Your task to perform on an android device: open app "Google Drive" Image 0: 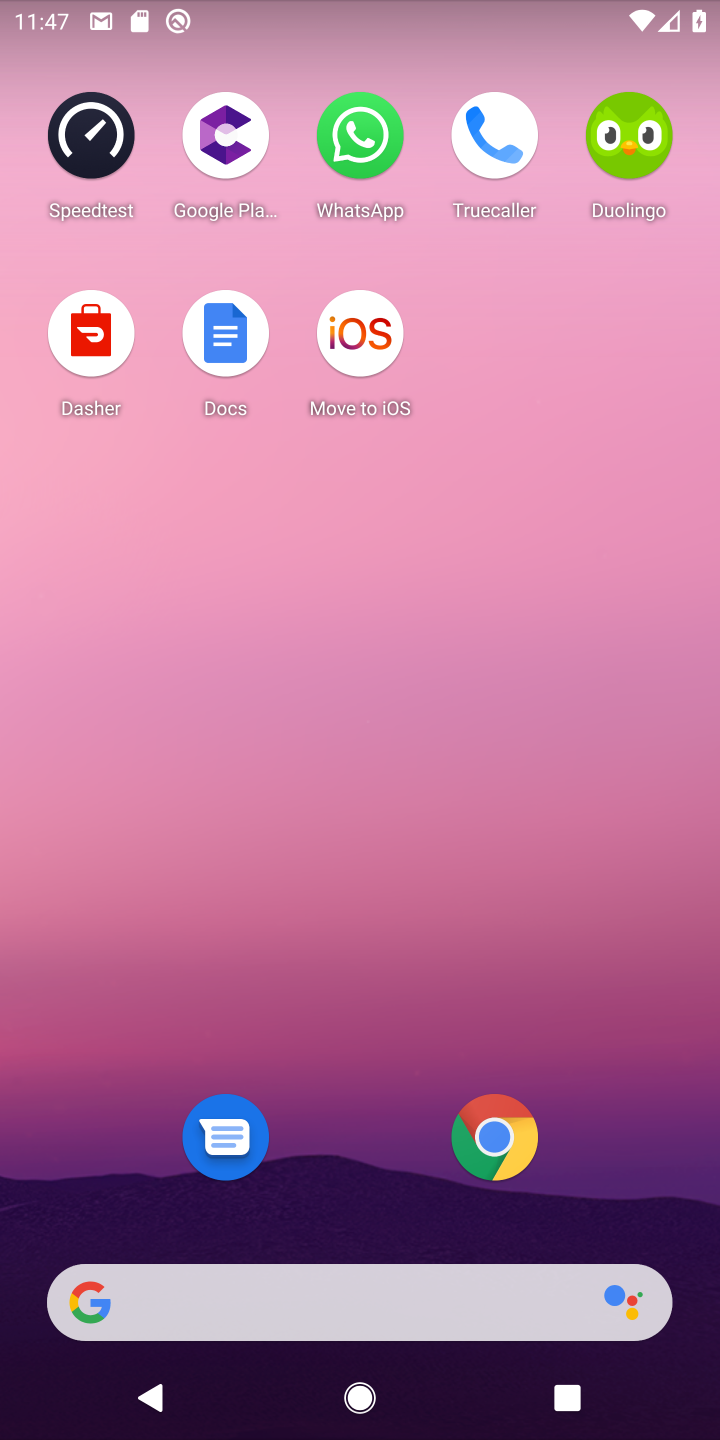
Step 0: drag from (602, 819) to (579, 115)
Your task to perform on an android device: open app "Google Drive" Image 1: 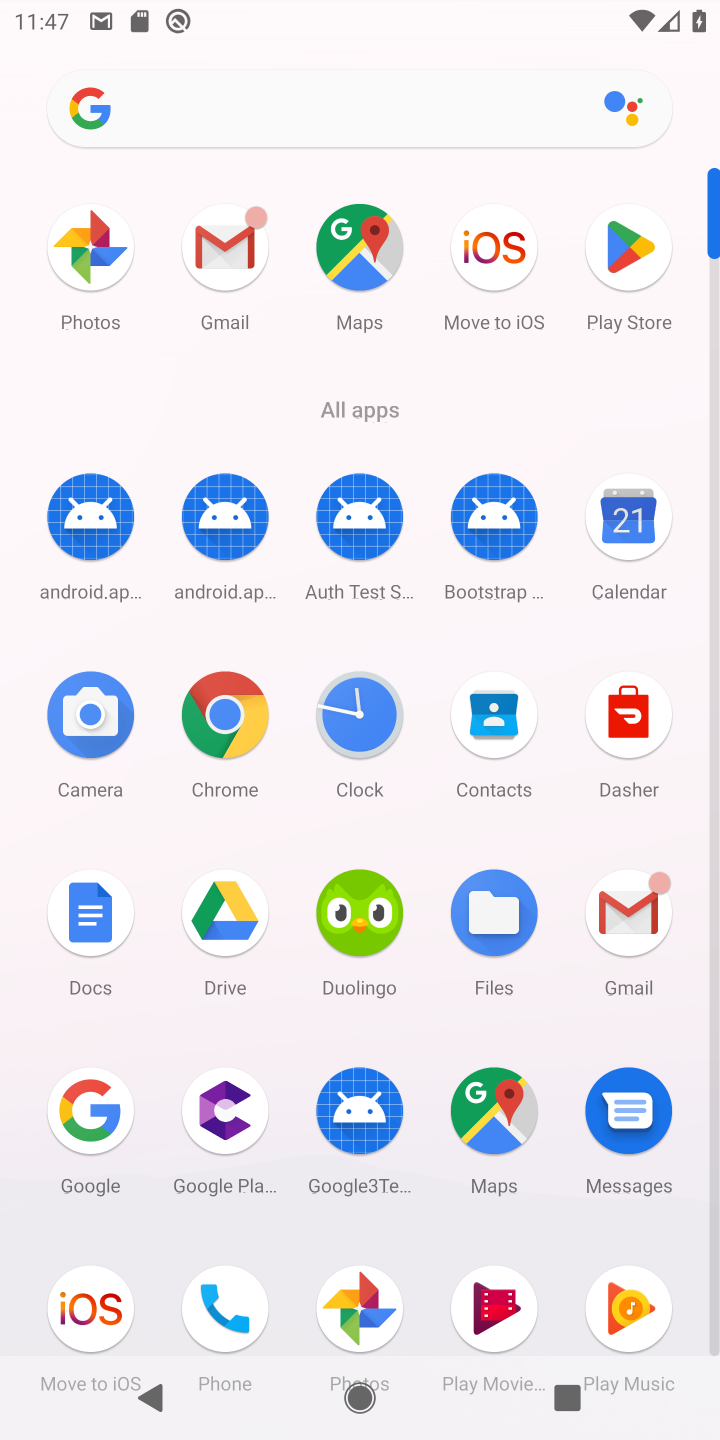
Step 1: drag from (426, 1237) to (418, 616)
Your task to perform on an android device: open app "Google Drive" Image 2: 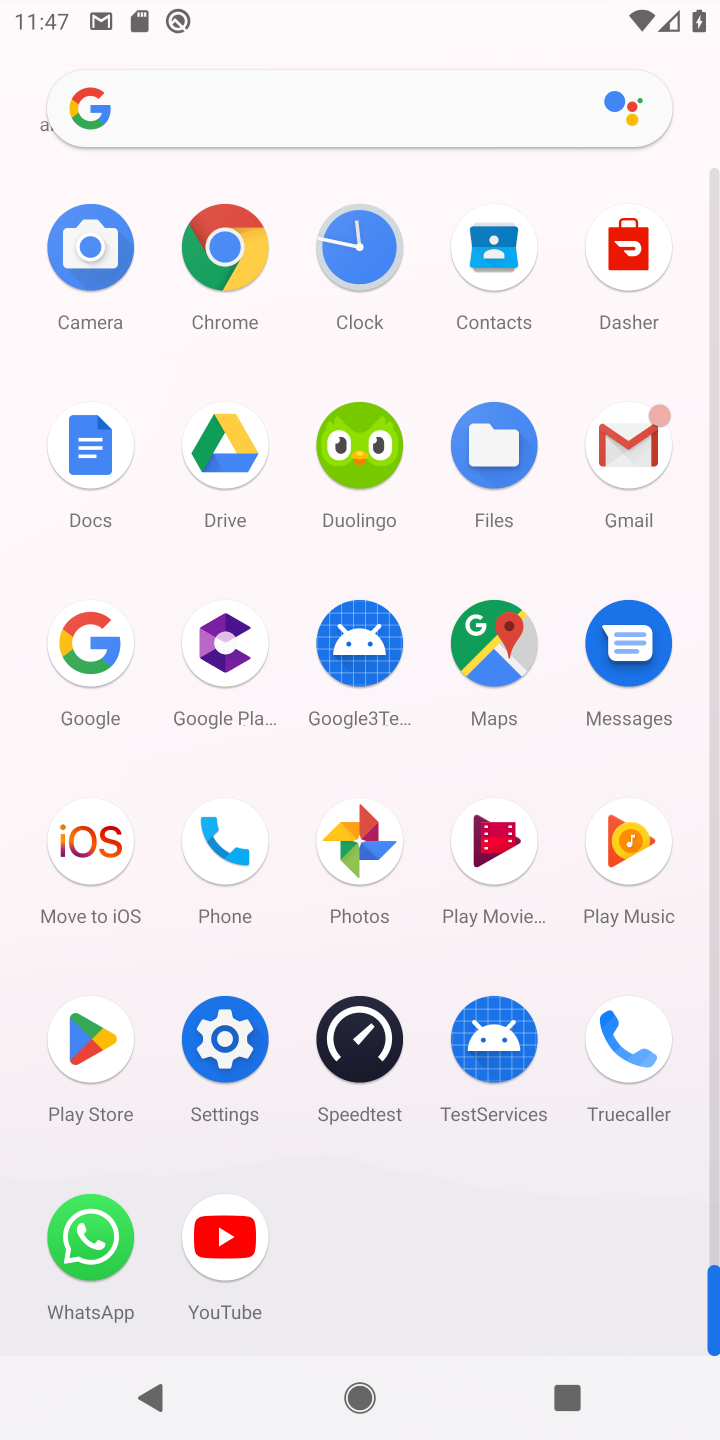
Step 2: click (93, 1038)
Your task to perform on an android device: open app "Google Drive" Image 3: 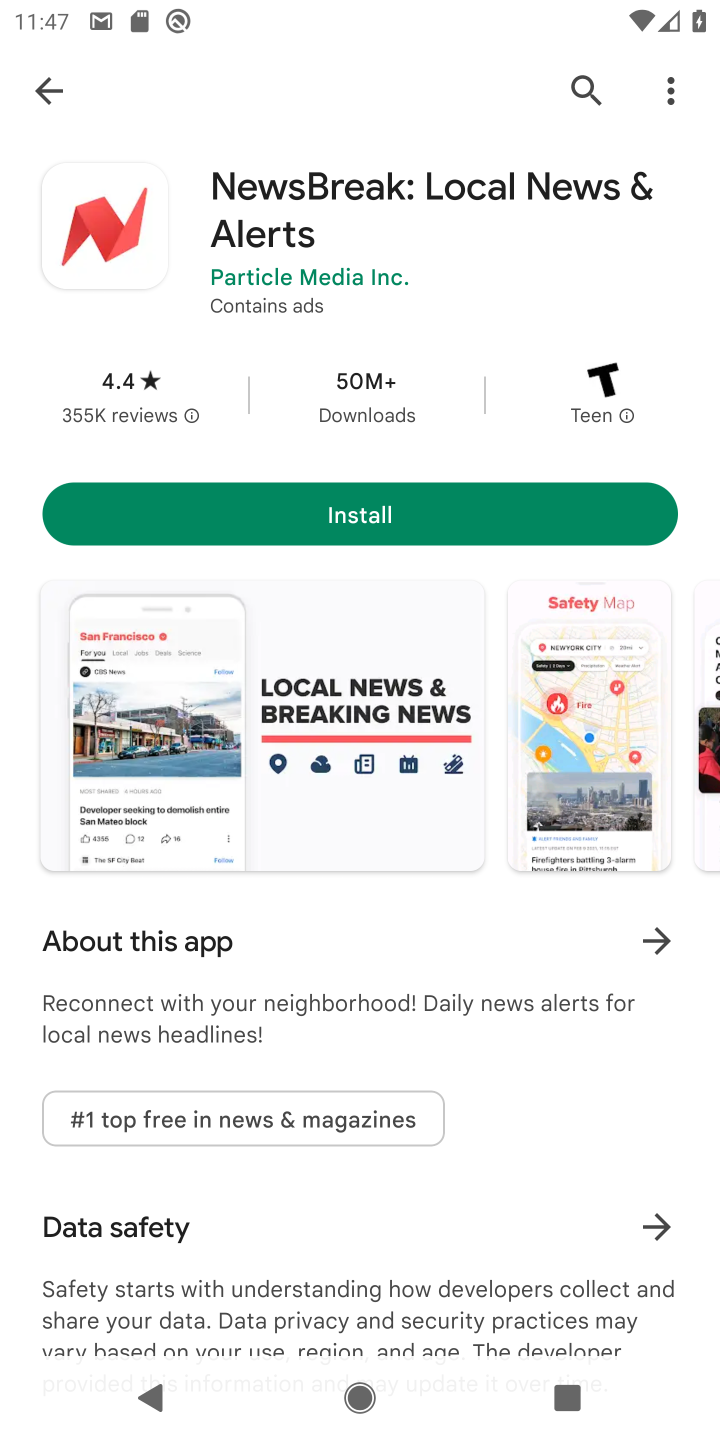
Step 3: click (581, 79)
Your task to perform on an android device: open app "Google Drive" Image 4: 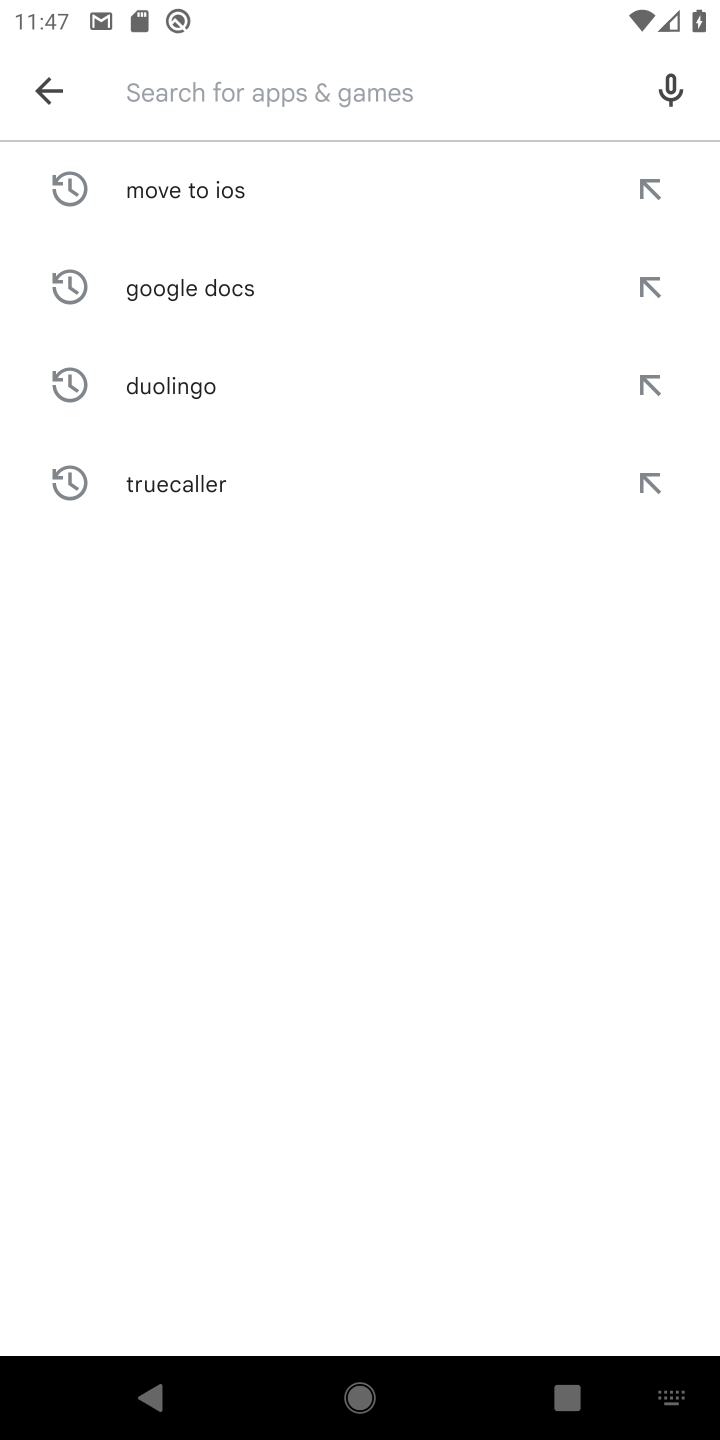
Step 4: type "Google Drive"
Your task to perform on an android device: open app "Google Drive" Image 5: 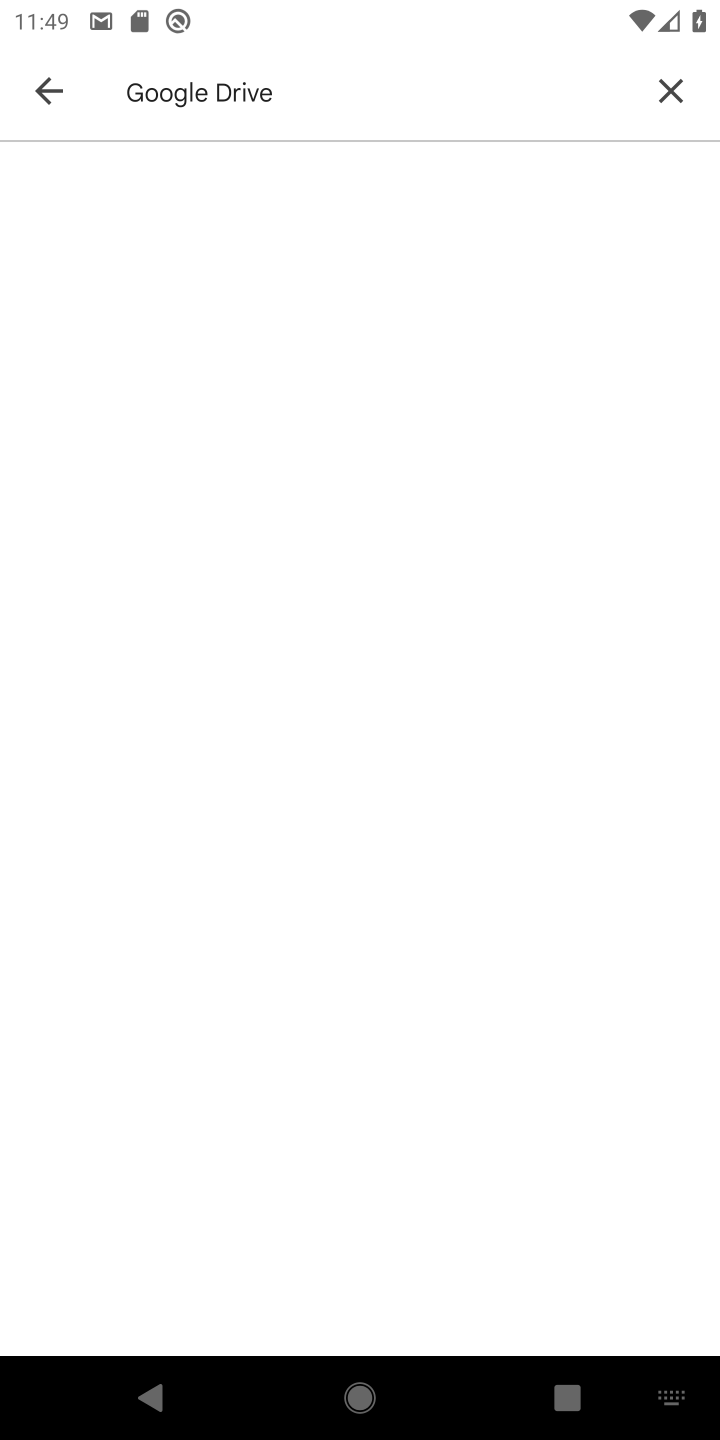
Step 5: task complete